Your task to perform on an android device: toggle priority inbox in the gmail app Image 0: 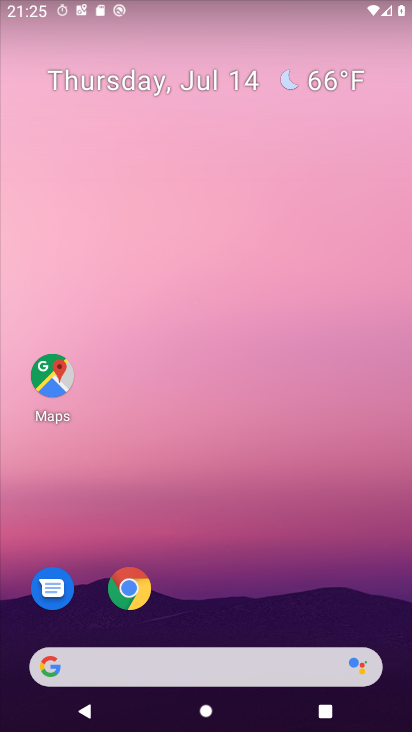
Step 0: drag from (313, 586) to (352, 30)
Your task to perform on an android device: toggle priority inbox in the gmail app Image 1: 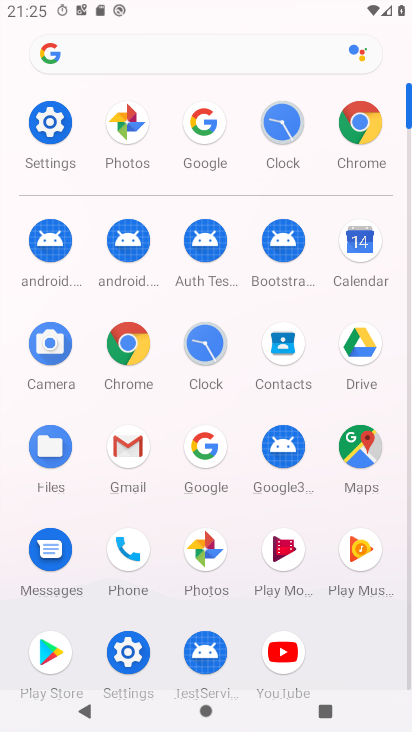
Step 1: click (133, 450)
Your task to perform on an android device: toggle priority inbox in the gmail app Image 2: 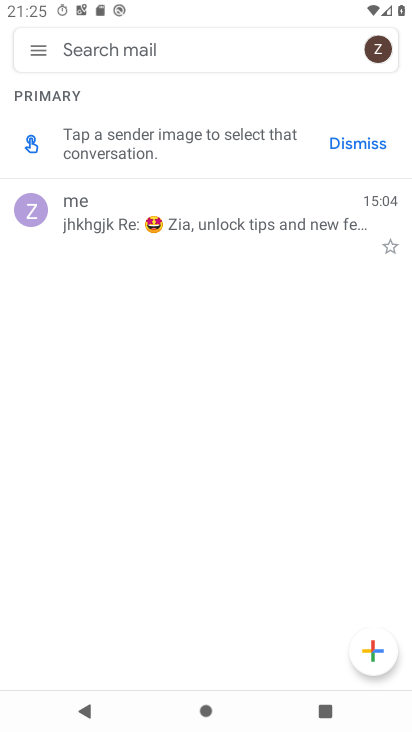
Step 2: click (37, 56)
Your task to perform on an android device: toggle priority inbox in the gmail app Image 3: 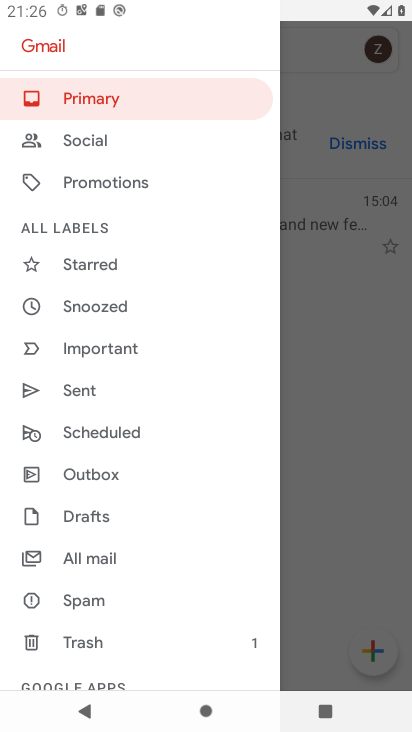
Step 3: drag from (201, 514) to (210, 418)
Your task to perform on an android device: toggle priority inbox in the gmail app Image 4: 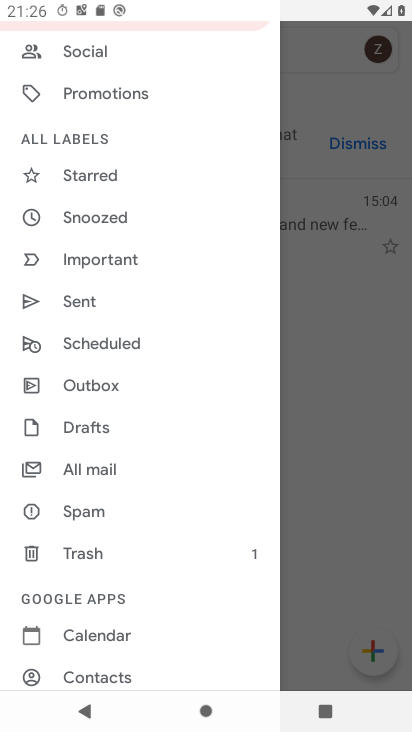
Step 4: drag from (208, 528) to (208, 456)
Your task to perform on an android device: toggle priority inbox in the gmail app Image 5: 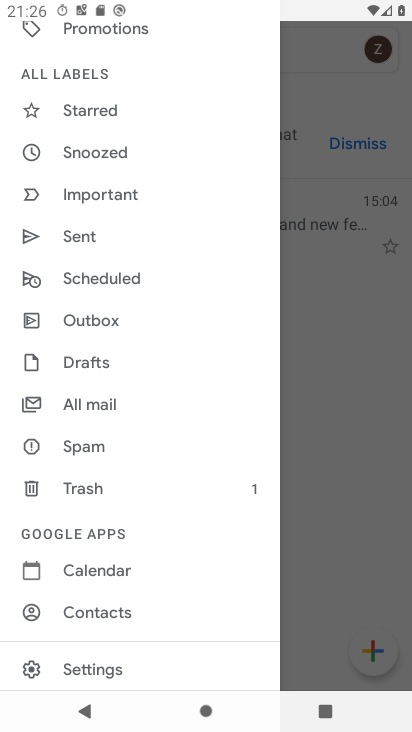
Step 5: drag from (207, 522) to (211, 331)
Your task to perform on an android device: toggle priority inbox in the gmail app Image 6: 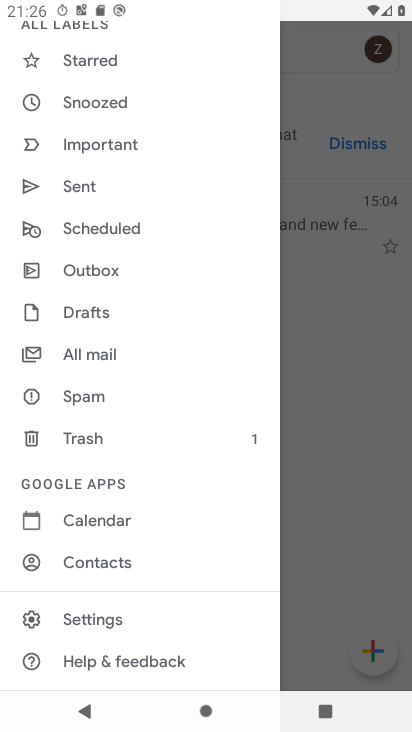
Step 6: click (130, 624)
Your task to perform on an android device: toggle priority inbox in the gmail app Image 7: 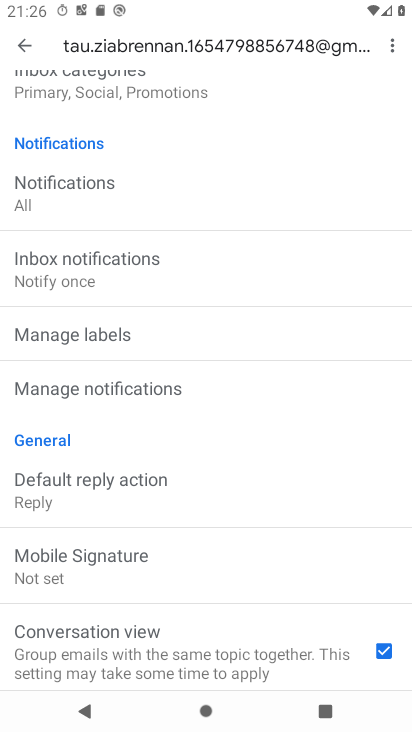
Step 7: drag from (268, 533) to (327, 288)
Your task to perform on an android device: toggle priority inbox in the gmail app Image 8: 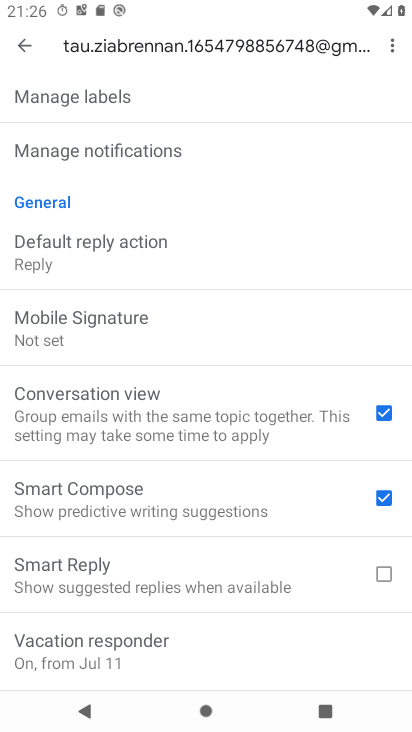
Step 8: drag from (319, 548) to (317, 423)
Your task to perform on an android device: toggle priority inbox in the gmail app Image 9: 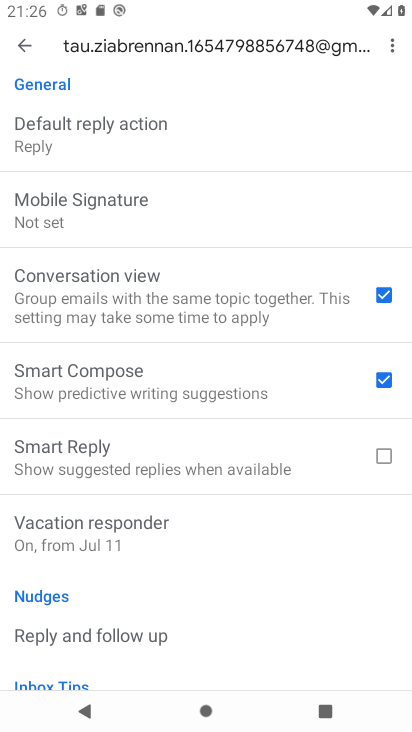
Step 9: drag from (307, 572) to (308, 354)
Your task to perform on an android device: toggle priority inbox in the gmail app Image 10: 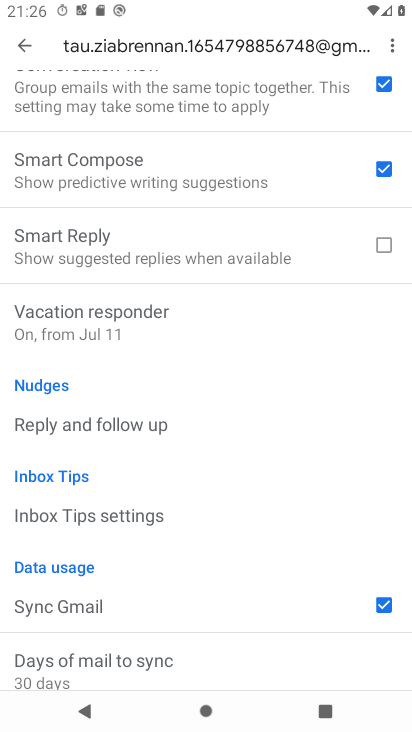
Step 10: drag from (288, 517) to (290, 392)
Your task to perform on an android device: toggle priority inbox in the gmail app Image 11: 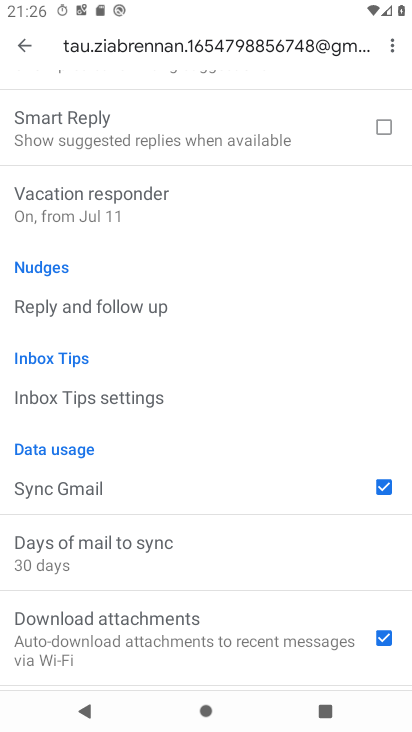
Step 11: drag from (283, 556) to (312, 160)
Your task to perform on an android device: toggle priority inbox in the gmail app Image 12: 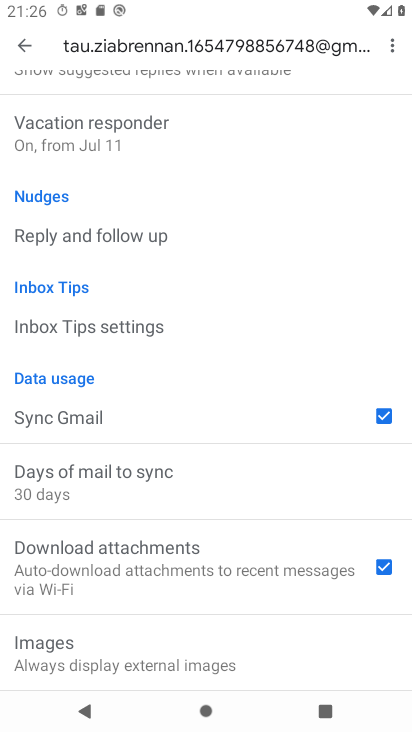
Step 12: drag from (312, 273) to (312, 350)
Your task to perform on an android device: toggle priority inbox in the gmail app Image 13: 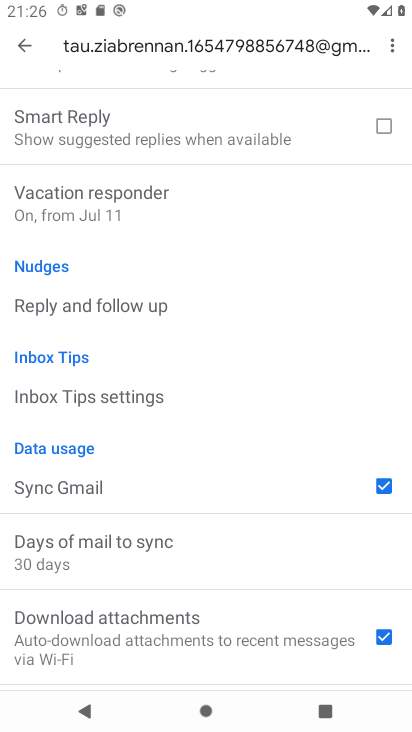
Step 13: drag from (311, 275) to (301, 381)
Your task to perform on an android device: toggle priority inbox in the gmail app Image 14: 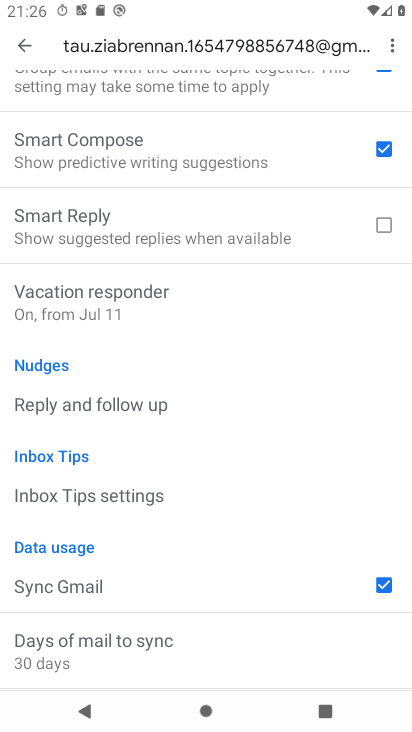
Step 14: drag from (298, 251) to (298, 344)
Your task to perform on an android device: toggle priority inbox in the gmail app Image 15: 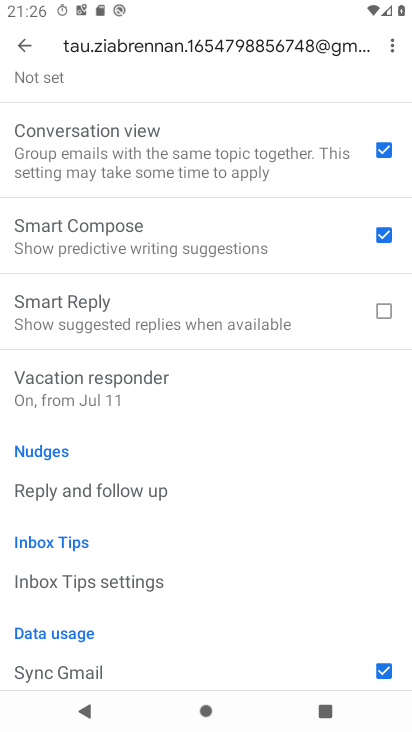
Step 15: drag from (301, 260) to (302, 374)
Your task to perform on an android device: toggle priority inbox in the gmail app Image 16: 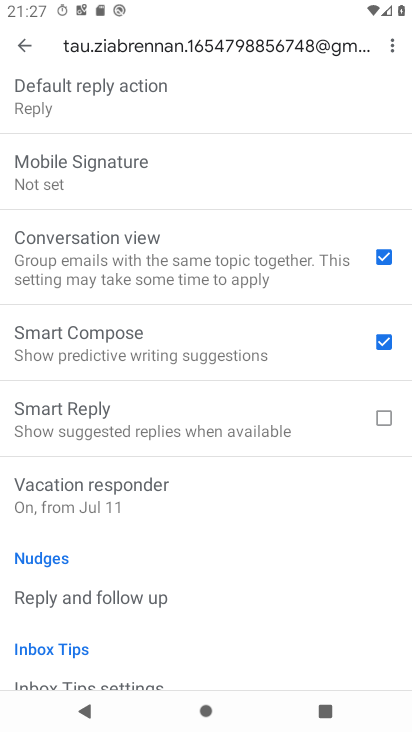
Step 16: drag from (302, 224) to (301, 356)
Your task to perform on an android device: toggle priority inbox in the gmail app Image 17: 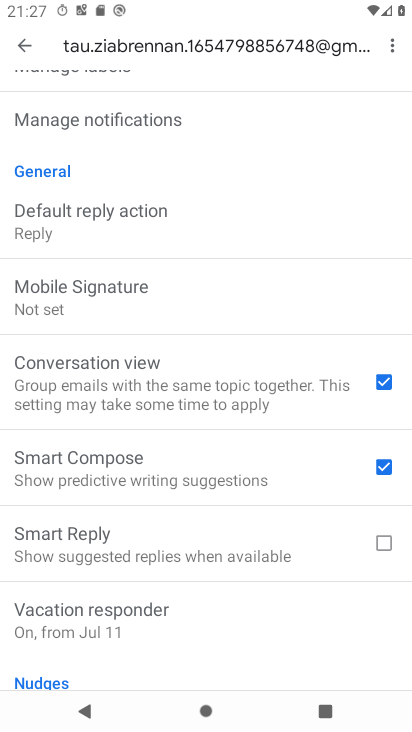
Step 17: drag from (281, 178) to (277, 366)
Your task to perform on an android device: toggle priority inbox in the gmail app Image 18: 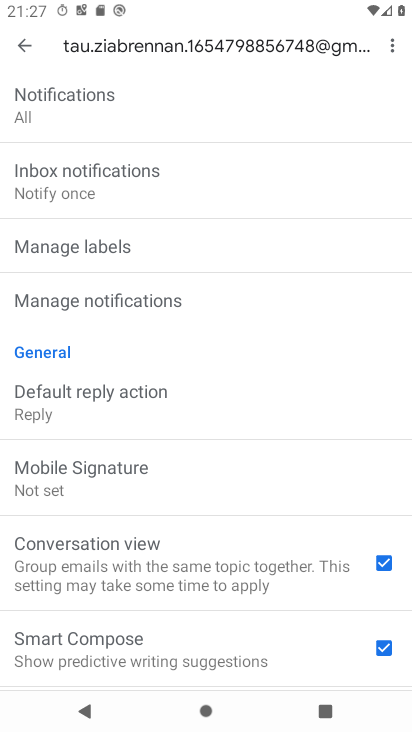
Step 18: drag from (277, 194) to (275, 351)
Your task to perform on an android device: toggle priority inbox in the gmail app Image 19: 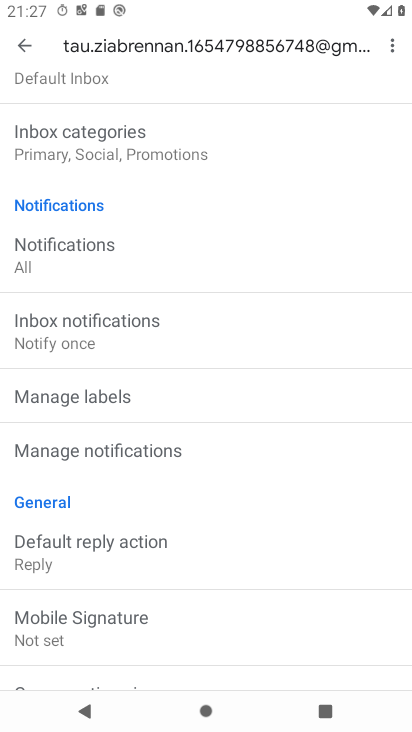
Step 19: drag from (286, 172) to (287, 306)
Your task to perform on an android device: toggle priority inbox in the gmail app Image 20: 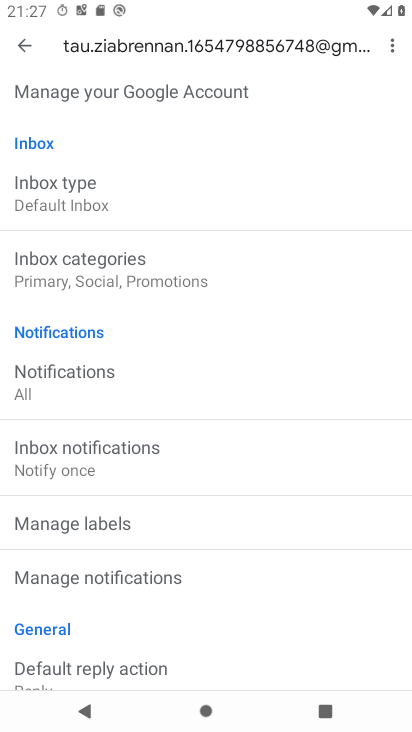
Step 20: click (112, 197)
Your task to perform on an android device: toggle priority inbox in the gmail app Image 21: 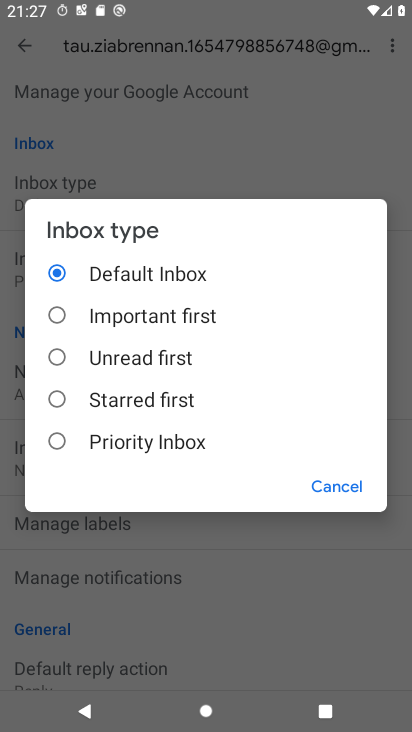
Step 21: click (138, 441)
Your task to perform on an android device: toggle priority inbox in the gmail app Image 22: 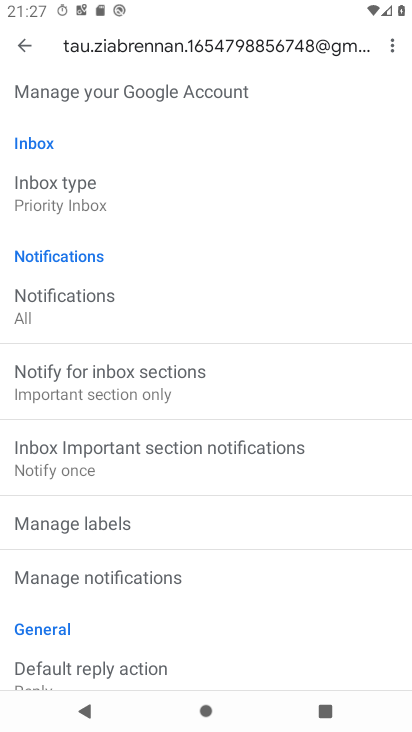
Step 22: task complete